Your task to perform on an android device: Go to Maps Image 0: 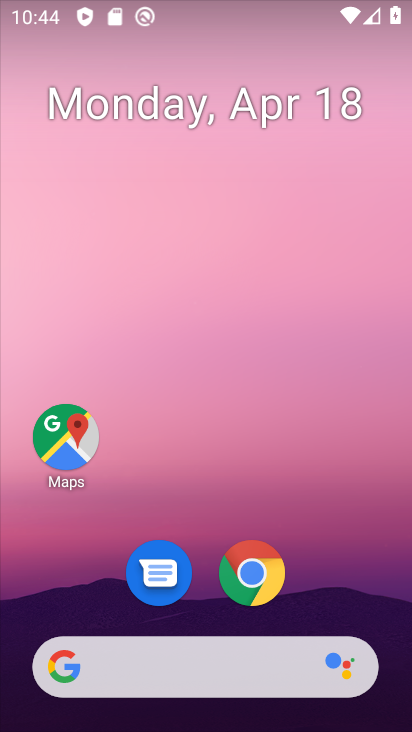
Step 0: click (73, 442)
Your task to perform on an android device: Go to Maps Image 1: 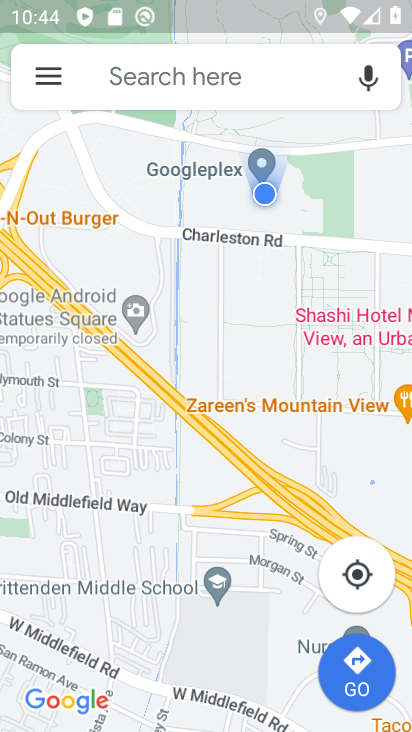
Step 1: task complete